Your task to perform on an android device: change notification settings in the gmail app Image 0: 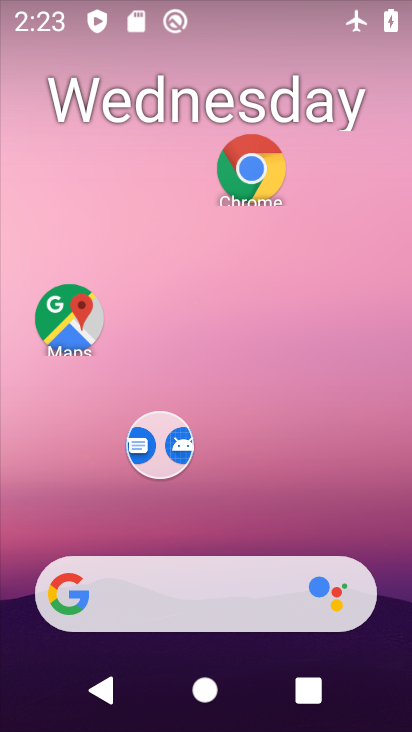
Step 0: click (354, 480)
Your task to perform on an android device: change notification settings in the gmail app Image 1: 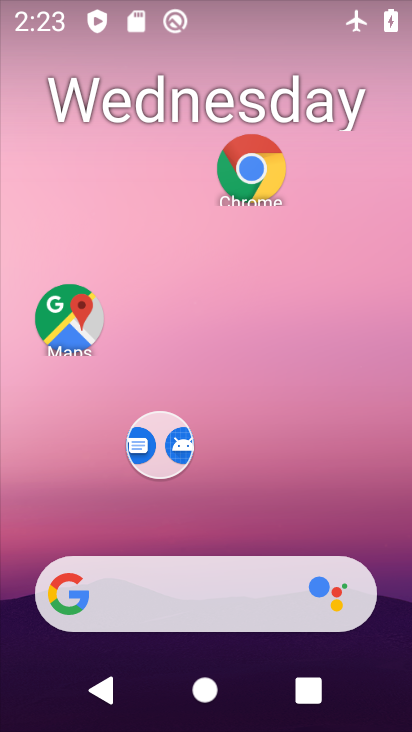
Step 1: drag from (203, 522) to (165, 74)
Your task to perform on an android device: change notification settings in the gmail app Image 2: 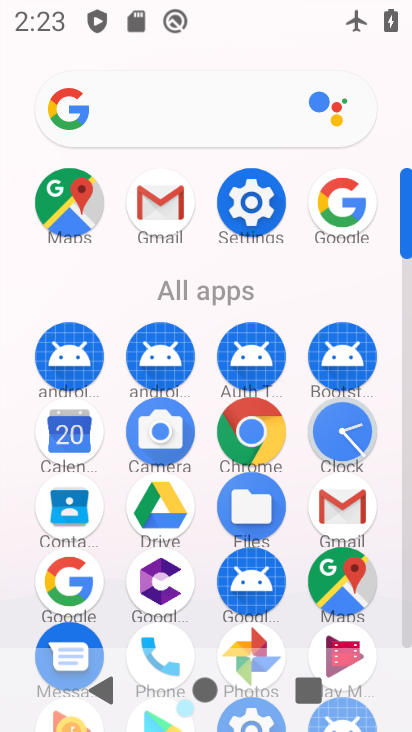
Step 2: click (159, 222)
Your task to perform on an android device: change notification settings in the gmail app Image 3: 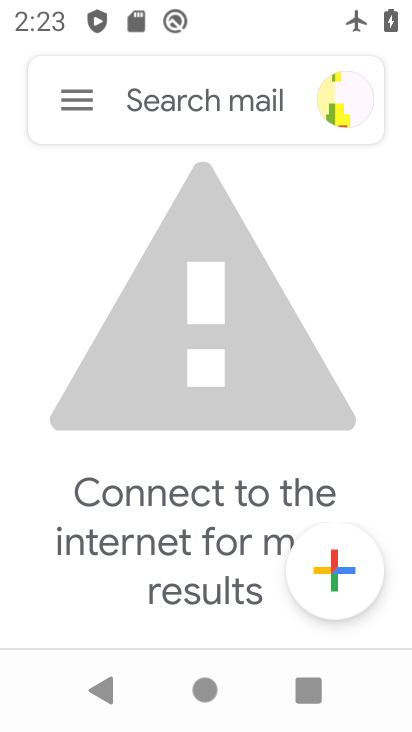
Step 3: click (88, 100)
Your task to perform on an android device: change notification settings in the gmail app Image 4: 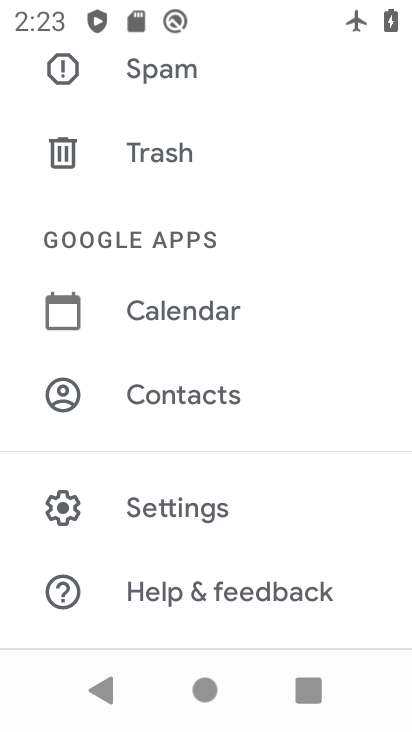
Step 4: click (136, 514)
Your task to perform on an android device: change notification settings in the gmail app Image 5: 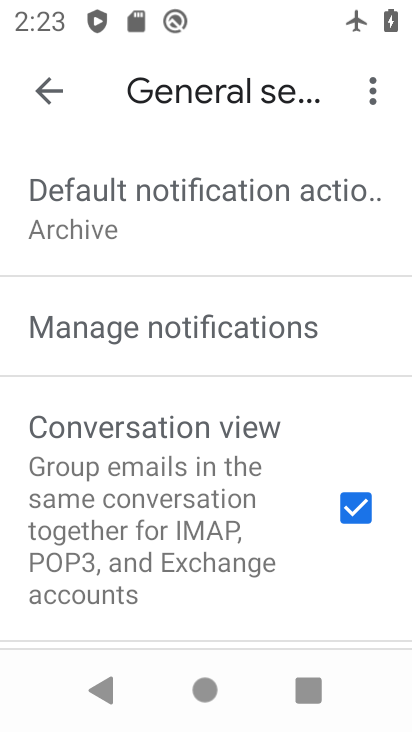
Step 5: click (211, 319)
Your task to perform on an android device: change notification settings in the gmail app Image 6: 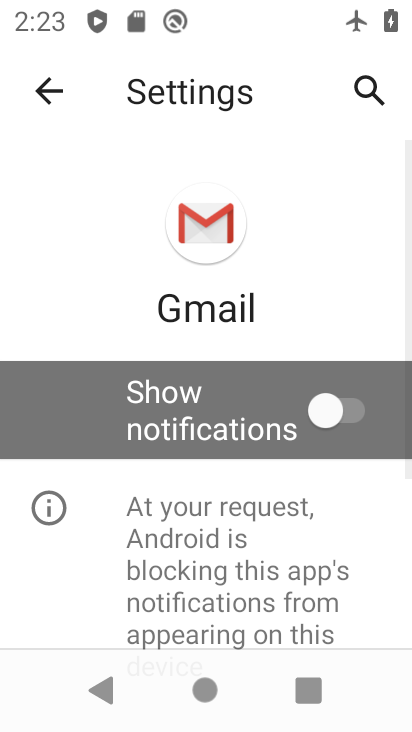
Step 6: click (305, 415)
Your task to perform on an android device: change notification settings in the gmail app Image 7: 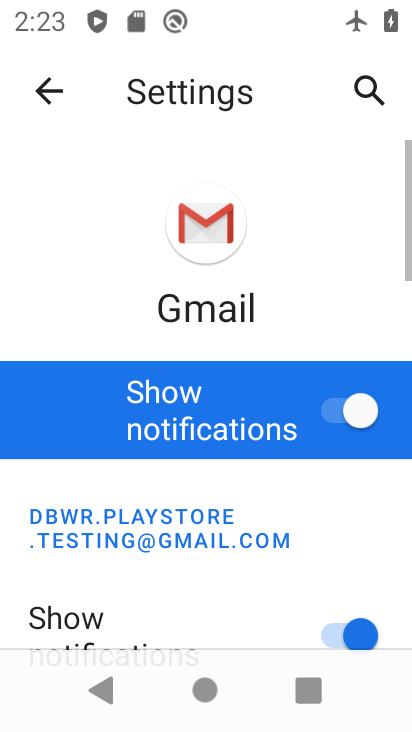
Step 7: task complete